Your task to perform on an android device: What's on my calendar tomorrow? Image 0: 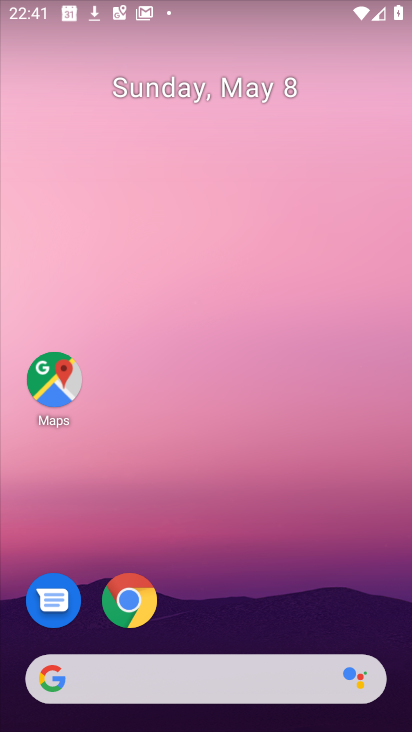
Step 0: drag from (260, 707) to (384, 82)
Your task to perform on an android device: What's on my calendar tomorrow? Image 1: 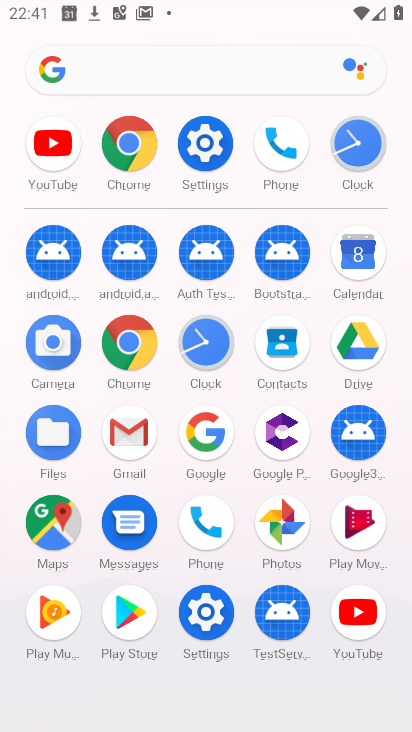
Step 1: click (349, 257)
Your task to perform on an android device: What's on my calendar tomorrow? Image 2: 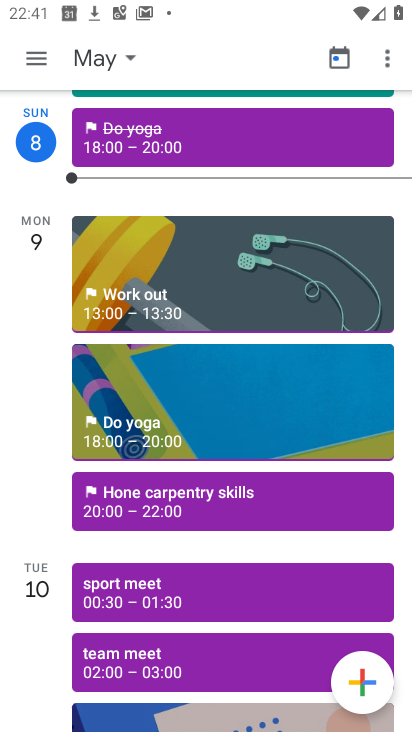
Step 2: task complete